Your task to perform on an android device: Open location settings Image 0: 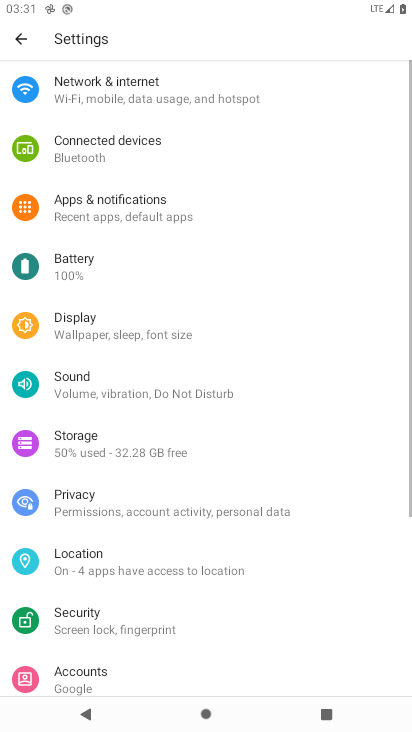
Step 0: click (117, 553)
Your task to perform on an android device: Open location settings Image 1: 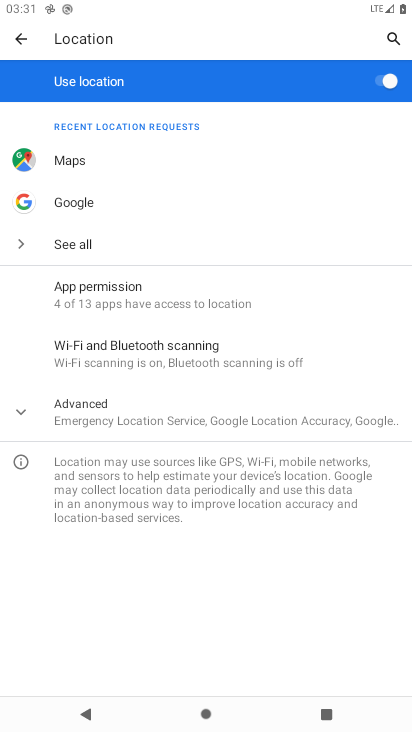
Step 1: click (33, 405)
Your task to perform on an android device: Open location settings Image 2: 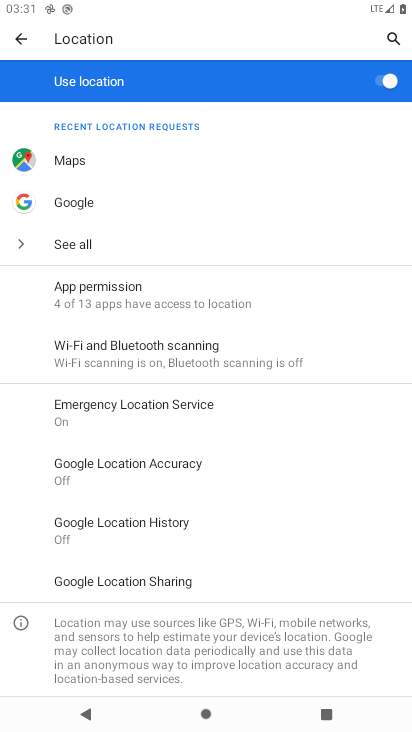
Step 2: task complete